Your task to perform on an android device: Open Youtube and go to "Your channel" Image 0: 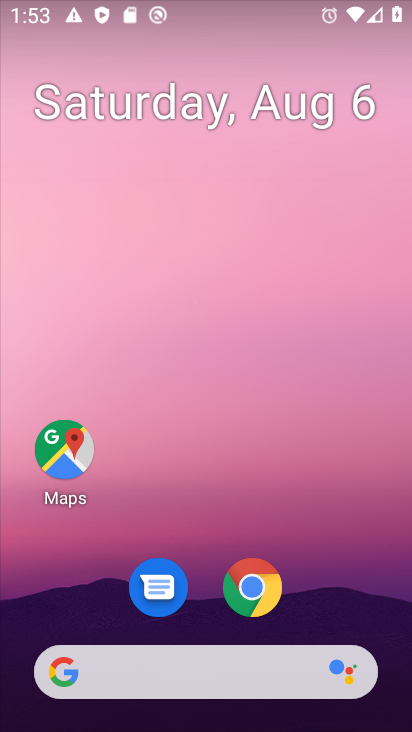
Step 0: drag from (215, 496) to (209, 135)
Your task to perform on an android device: Open Youtube and go to "Your channel" Image 1: 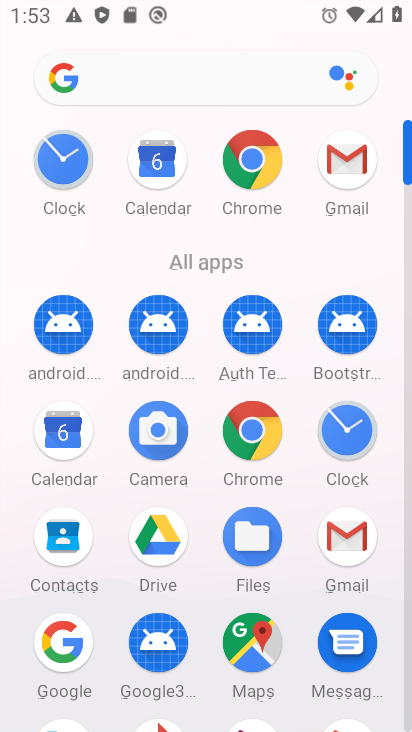
Step 1: drag from (175, 592) to (188, 239)
Your task to perform on an android device: Open Youtube and go to "Your channel" Image 2: 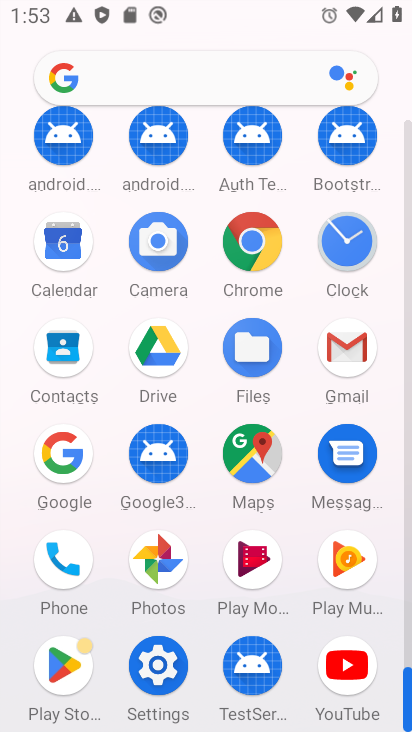
Step 2: click (343, 645)
Your task to perform on an android device: Open Youtube and go to "Your channel" Image 3: 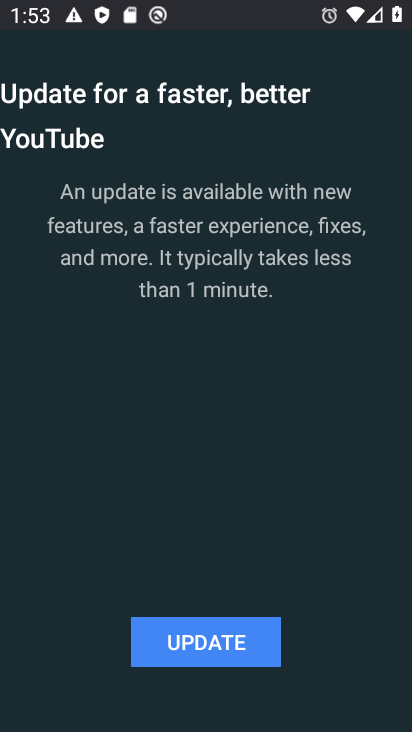
Step 3: click (229, 651)
Your task to perform on an android device: Open Youtube and go to "Your channel" Image 4: 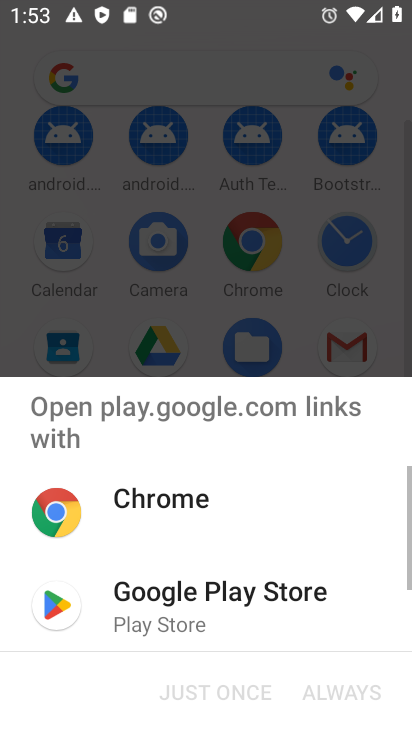
Step 4: click (254, 594)
Your task to perform on an android device: Open Youtube and go to "Your channel" Image 5: 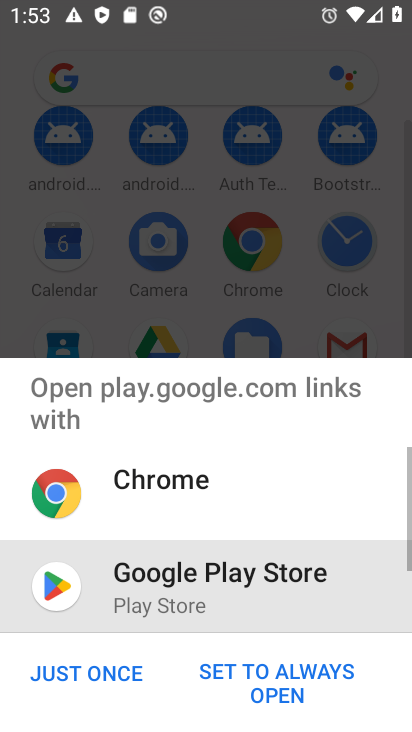
Step 5: click (97, 672)
Your task to perform on an android device: Open Youtube and go to "Your channel" Image 6: 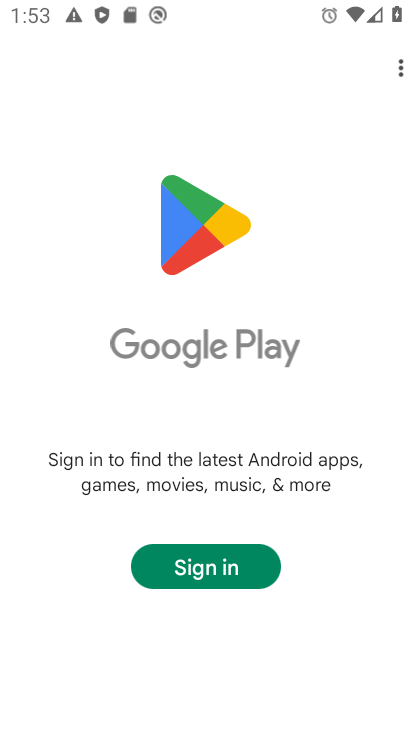
Step 6: task complete